Your task to perform on an android device: manage bookmarks in the chrome app Image 0: 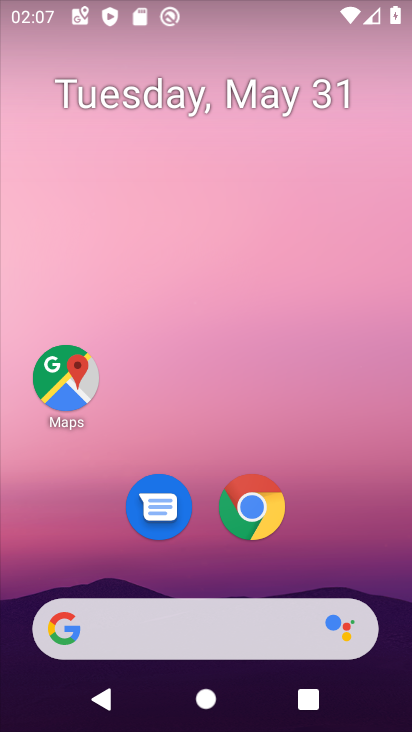
Step 0: click (242, 506)
Your task to perform on an android device: manage bookmarks in the chrome app Image 1: 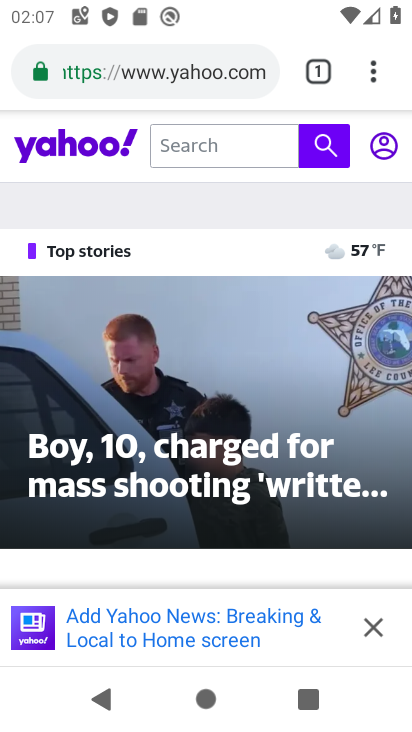
Step 1: click (380, 67)
Your task to perform on an android device: manage bookmarks in the chrome app Image 2: 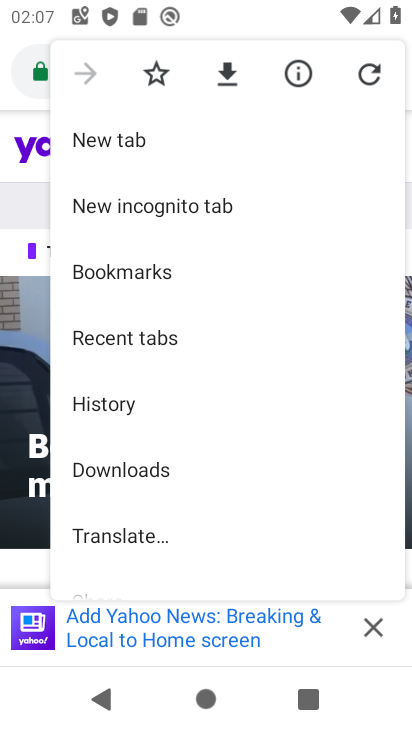
Step 2: click (157, 286)
Your task to perform on an android device: manage bookmarks in the chrome app Image 3: 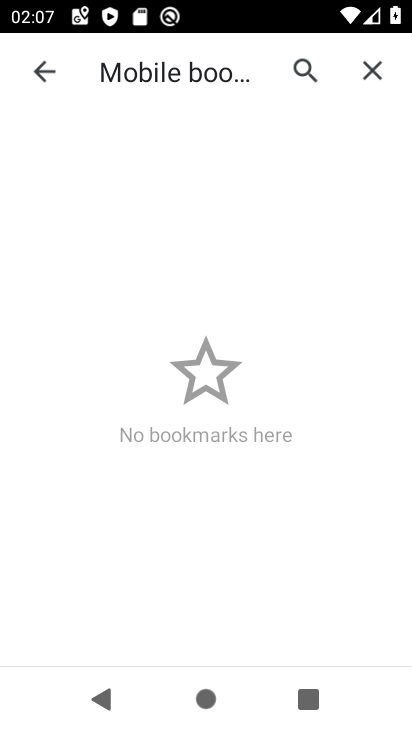
Step 3: click (157, 286)
Your task to perform on an android device: manage bookmarks in the chrome app Image 4: 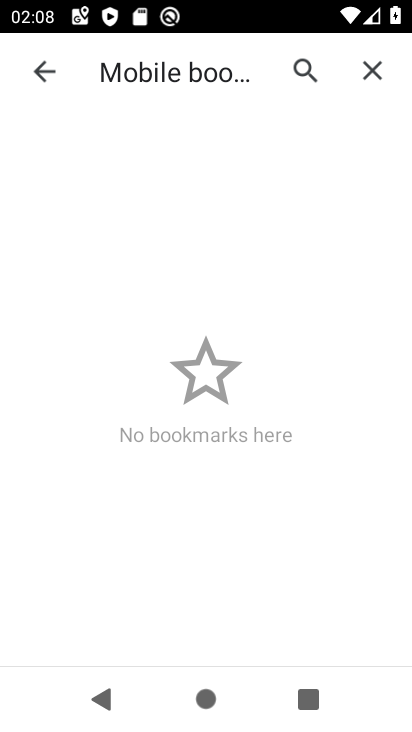
Step 4: task complete